Your task to perform on an android device: Search for seafood restaurants on Google Maps Image 0: 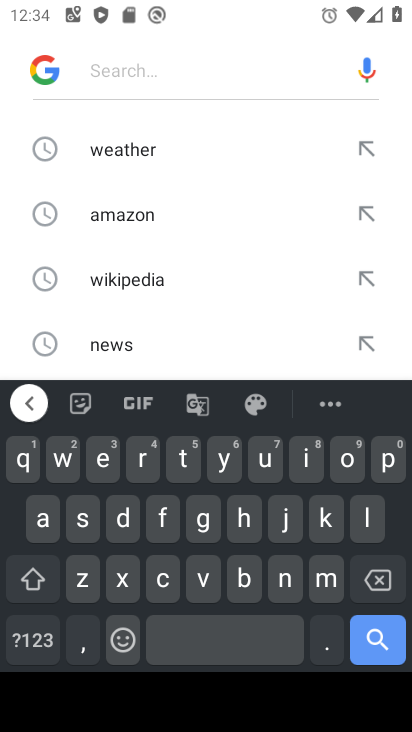
Step 0: press home button
Your task to perform on an android device: Search for seafood restaurants on Google Maps Image 1: 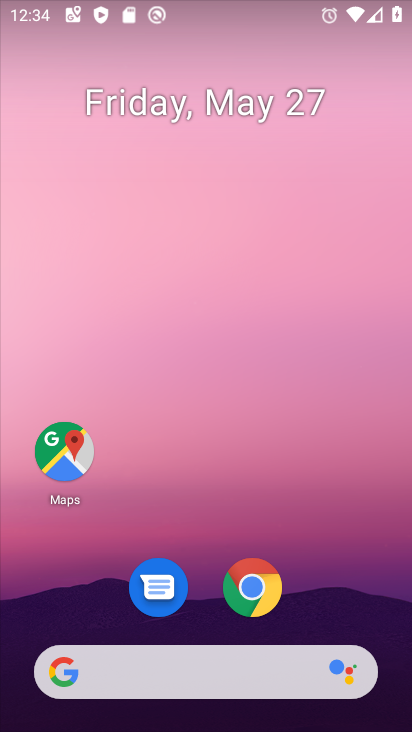
Step 1: drag from (244, 708) to (285, 121)
Your task to perform on an android device: Search for seafood restaurants on Google Maps Image 2: 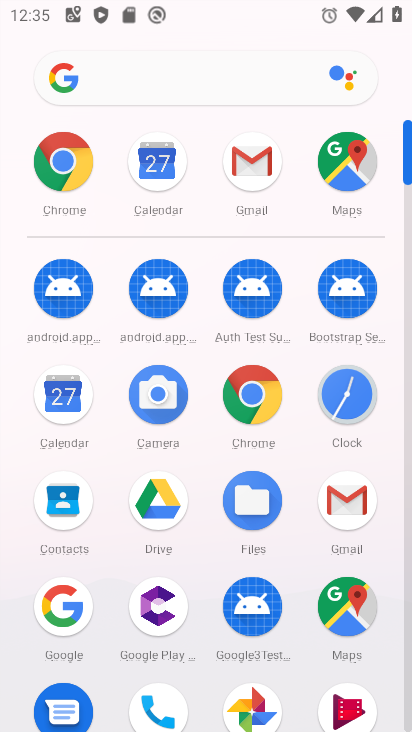
Step 2: click (333, 144)
Your task to perform on an android device: Search for seafood restaurants on Google Maps Image 3: 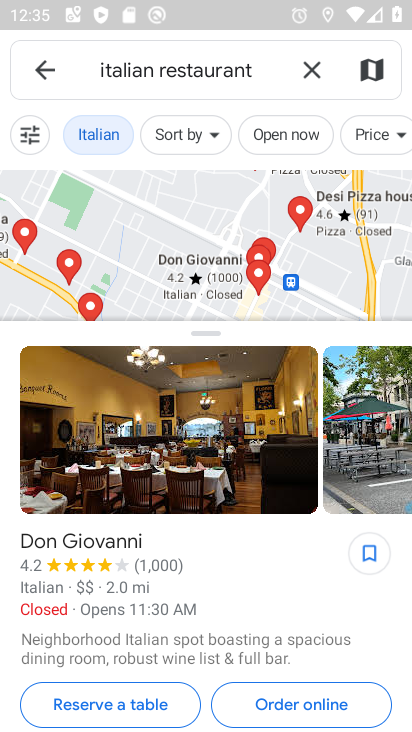
Step 3: click (308, 85)
Your task to perform on an android device: Search for seafood restaurants on Google Maps Image 4: 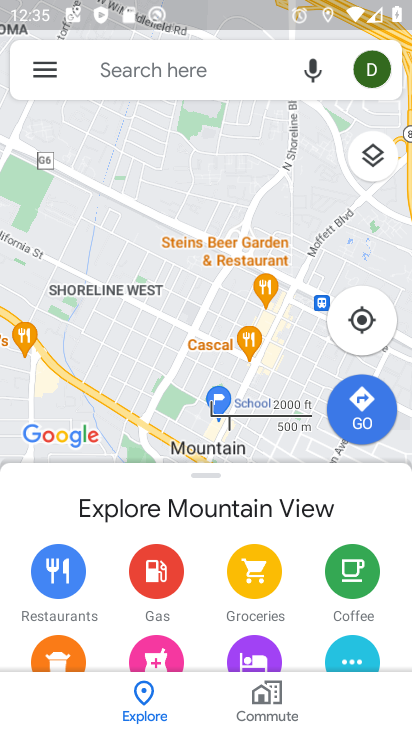
Step 4: click (171, 70)
Your task to perform on an android device: Search for seafood restaurants on Google Maps Image 5: 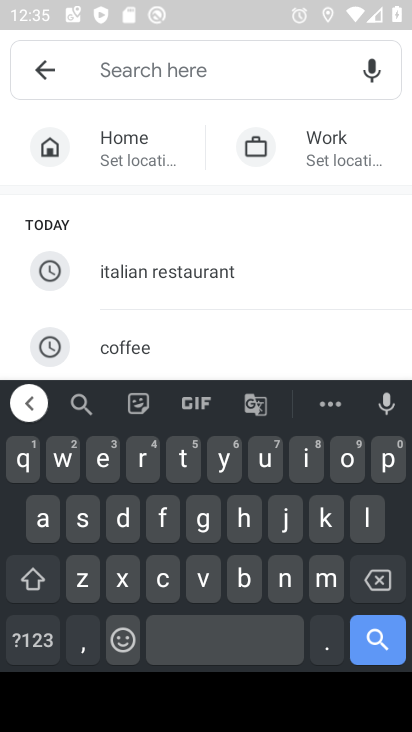
Step 5: click (88, 522)
Your task to perform on an android device: Search for seafood restaurants on Google Maps Image 6: 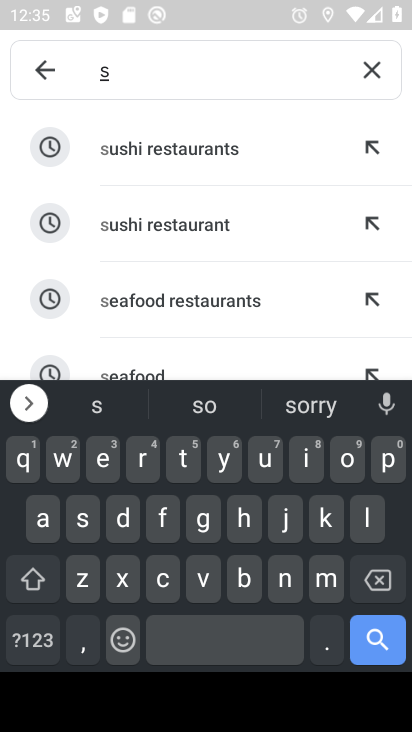
Step 6: click (214, 307)
Your task to perform on an android device: Search for seafood restaurants on Google Maps Image 7: 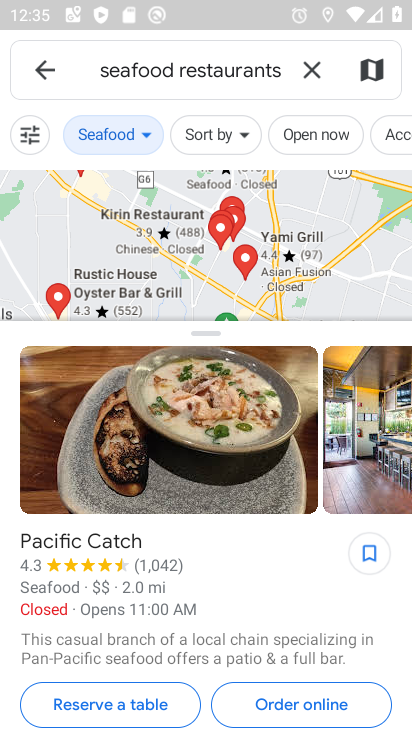
Step 7: click (213, 273)
Your task to perform on an android device: Search for seafood restaurants on Google Maps Image 8: 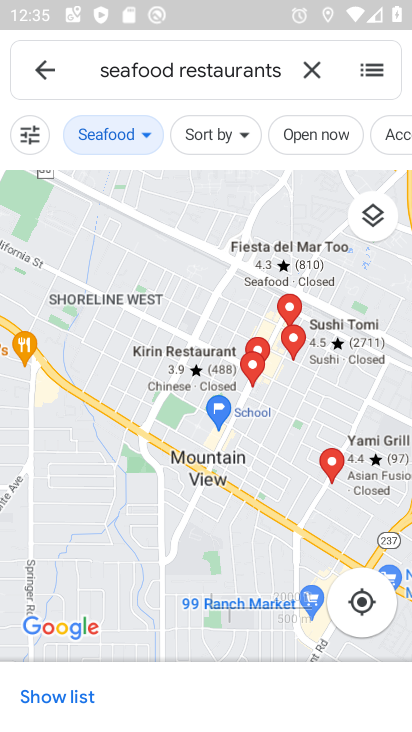
Step 8: task complete